Your task to perform on an android device: turn pop-ups on in chrome Image 0: 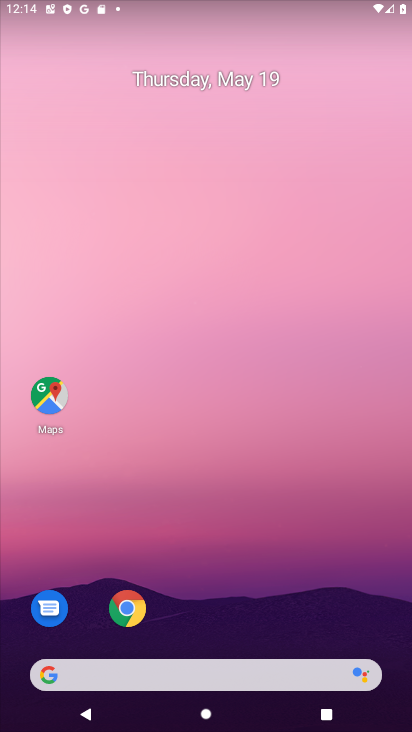
Step 0: drag from (178, 585) to (204, 290)
Your task to perform on an android device: turn pop-ups on in chrome Image 1: 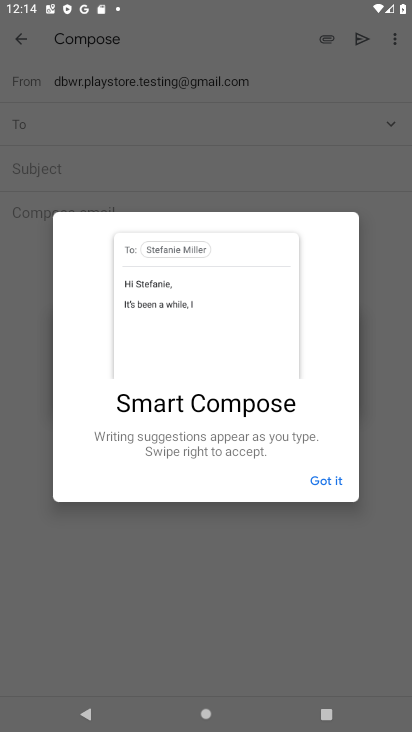
Step 1: press home button
Your task to perform on an android device: turn pop-ups on in chrome Image 2: 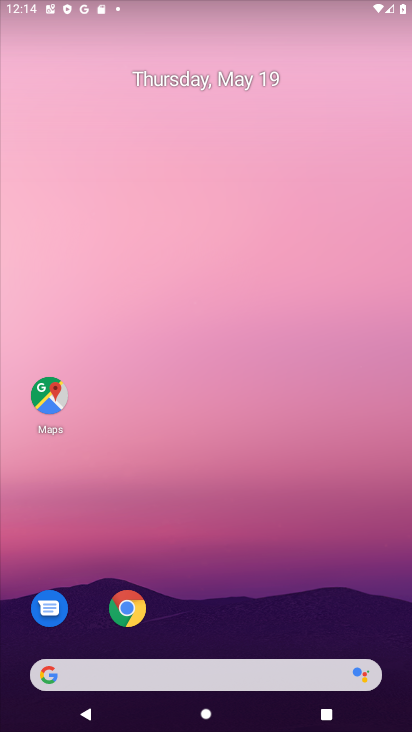
Step 2: drag from (231, 631) to (264, 285)
Your task to perform on an android device: turn pop-ups on in chrome Image 3: 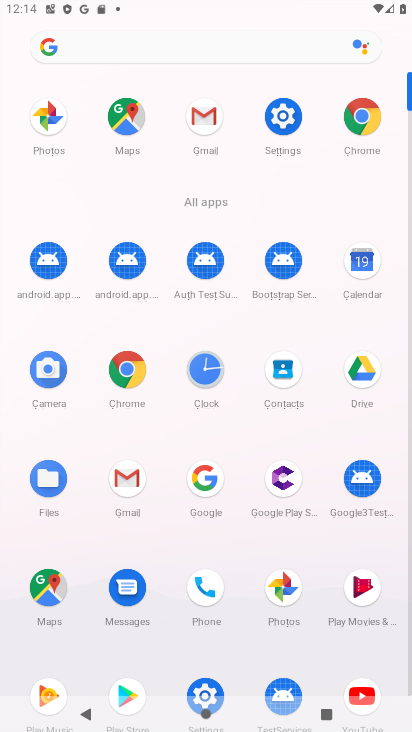
Step 3: click (131, 365)
Your task to perform on an android device: turn pop-ups on in chrome Image 4: 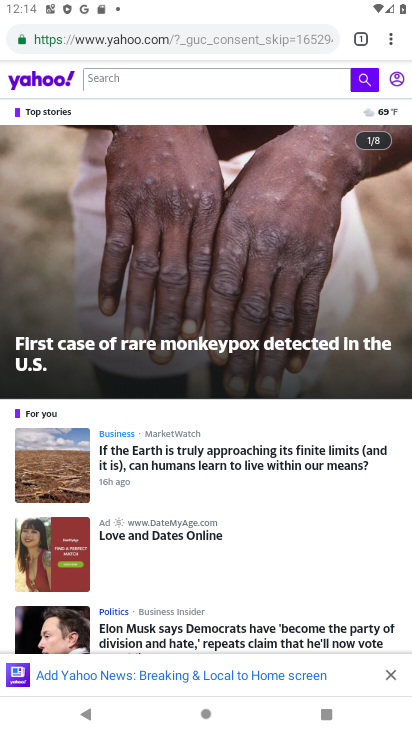
Step 4: click (393, 31)
Your task to perform on an android device: turn pop-ups on in chrome Image 5: 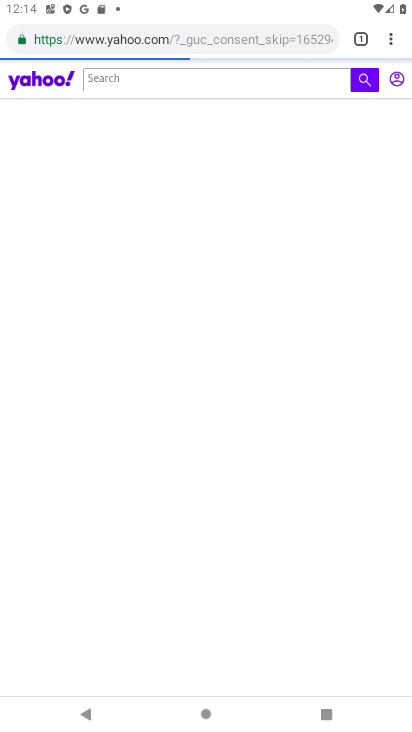
Step 5: click (387, 46)
Your task to perform on an android device: turn pop-ups on in chrome Image 6: 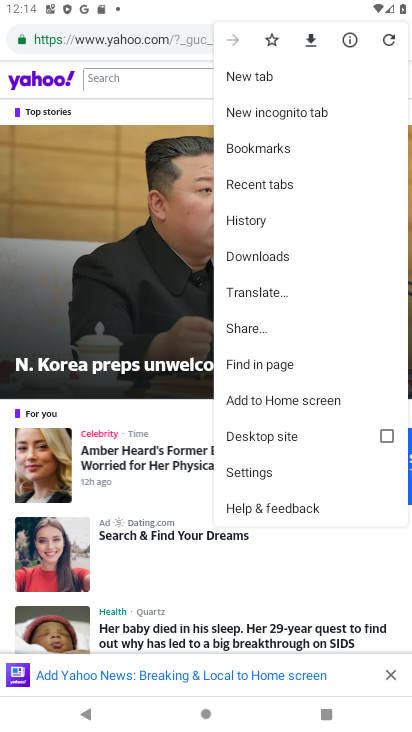
Step 6: drag from (288, 393) to (312, 299)
Your task to perform on an android device: turn pop-ups on in chrome Image 7: 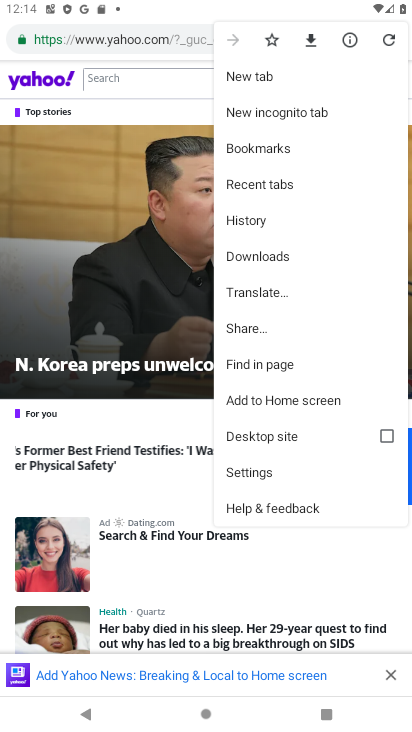
Step 7: click (280, 472)
Your task to perform on an android device: turn pop-ups on in chrome Image 8: 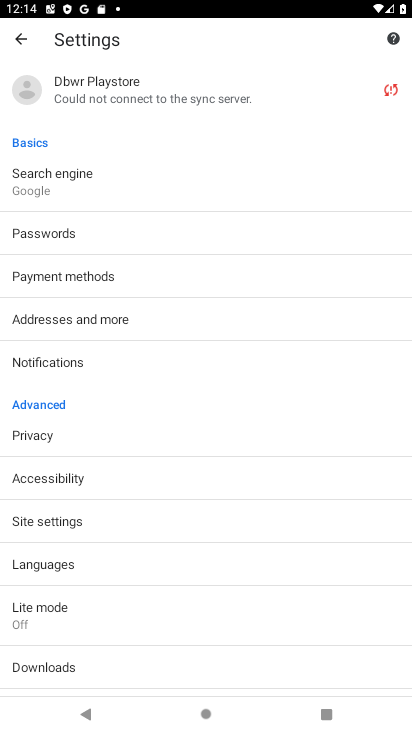
Step 8: drag from (154, 597) to (186, 363)
Your task to perform on an android device: turn pop-ups on in chrome Image 9: 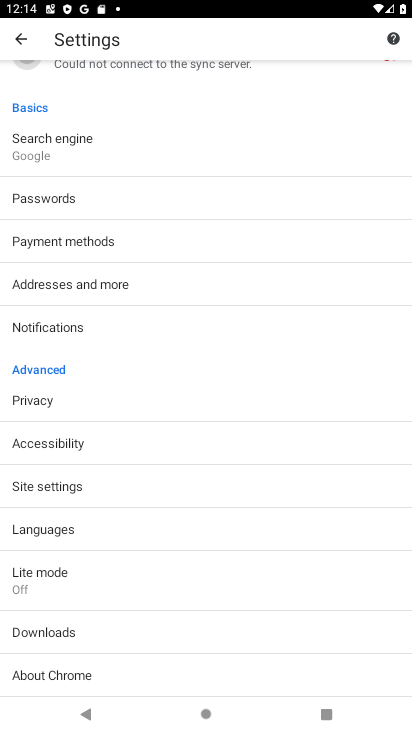
Step 9: click (101, 487)
Your task to perform on an android device: turn pop-ups on in chrome Image 10: 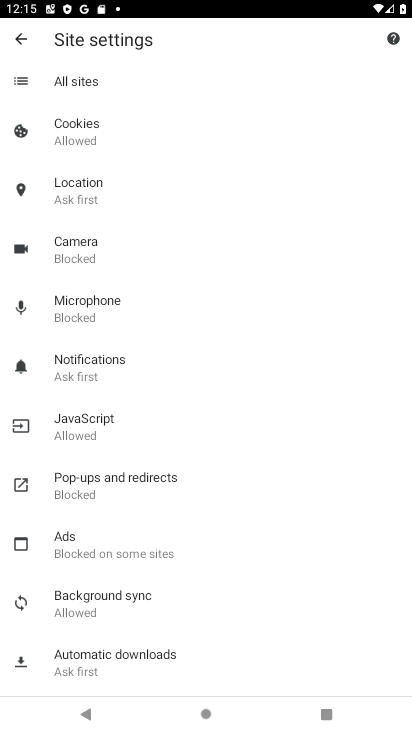
Step 10: click (127, 485)
Your task to perform on an android device: turn pop-ups on in chrome Image 11: 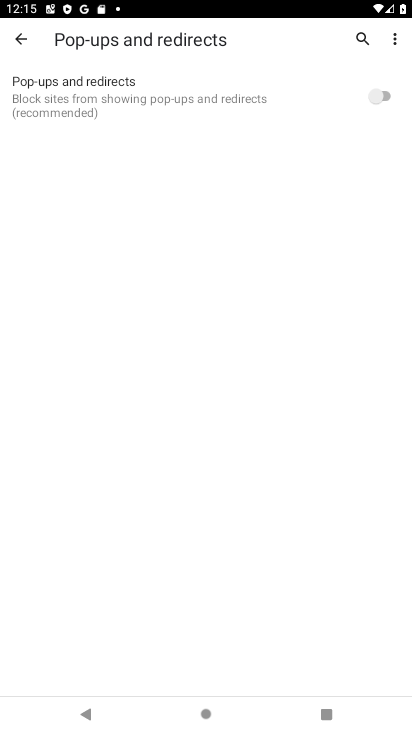
Step 11: click (375, 89)
Your task to perform on an android device: turn pop-ups on in chrome Image 12: 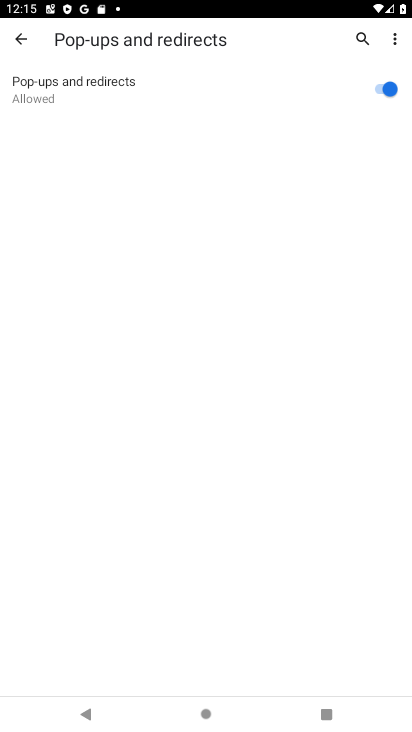
Step 12: task complete